Your task to perform on an android device: change alarm snooze length Image 0: 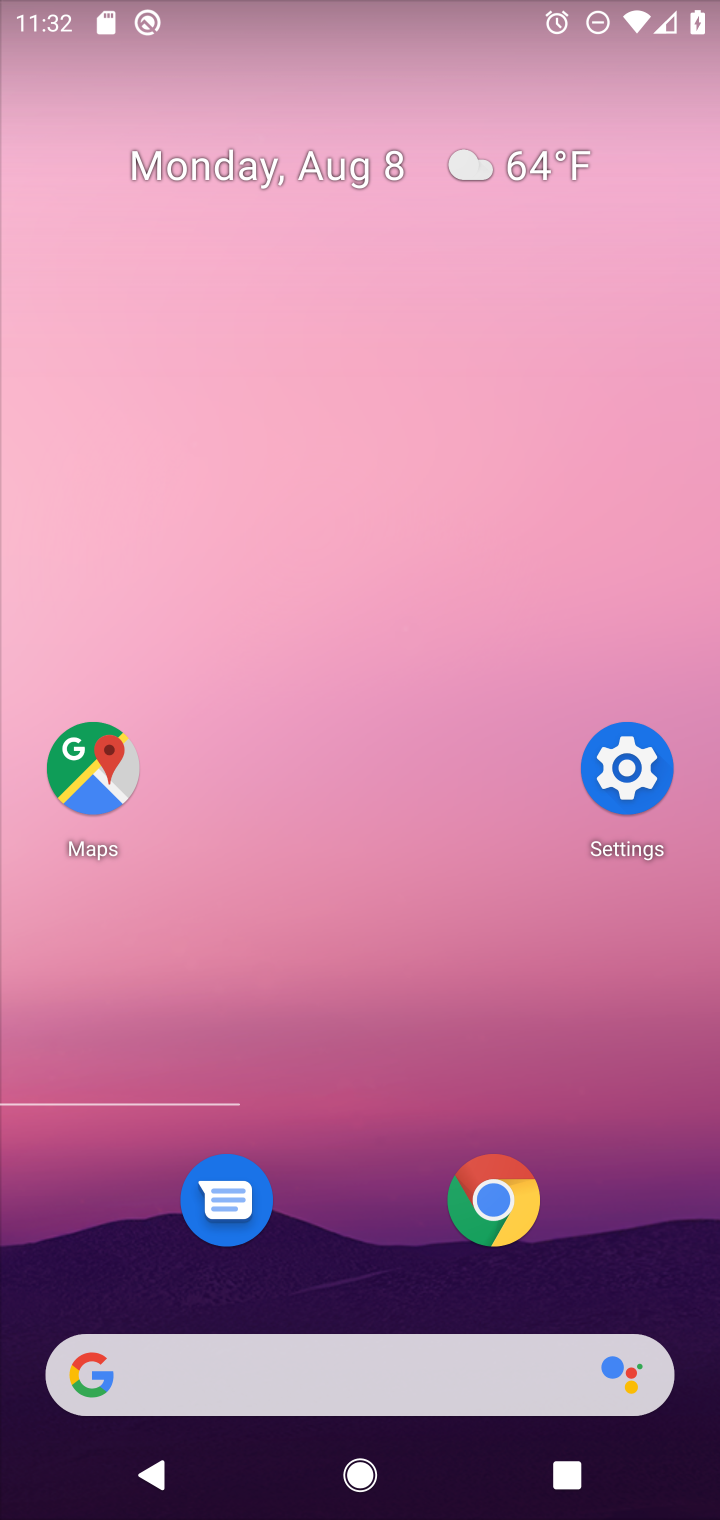
Step 0: drag from (356, 1325) to (496, 170)
Your task to perform on an android device: change alarm snooze length Image 1: 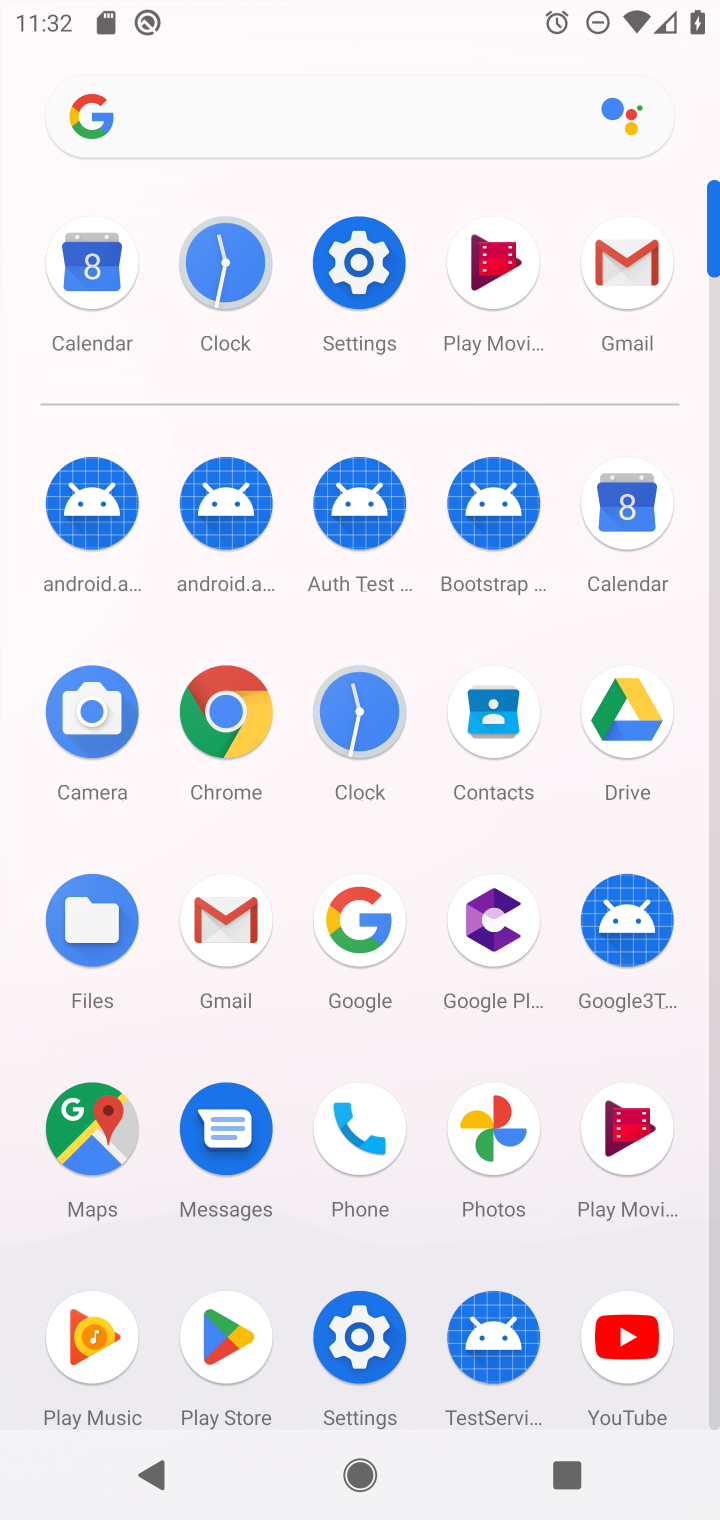
Step 1: click (211, 234)
Your task to perform on an android device: change alarm snooze length Image 2: 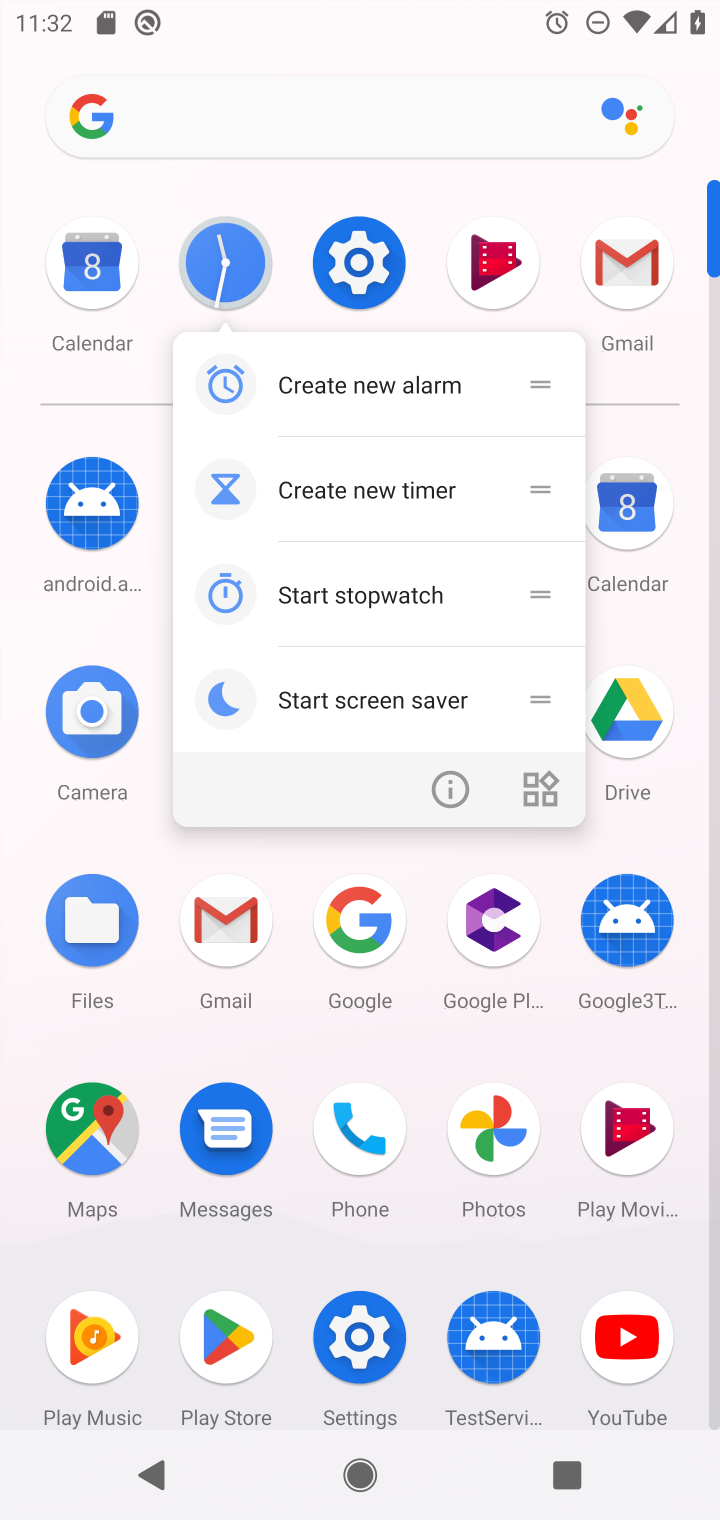
Step 2: click (222, 256)
Your task to perform on an android device: change alarm snooze length Image 3: 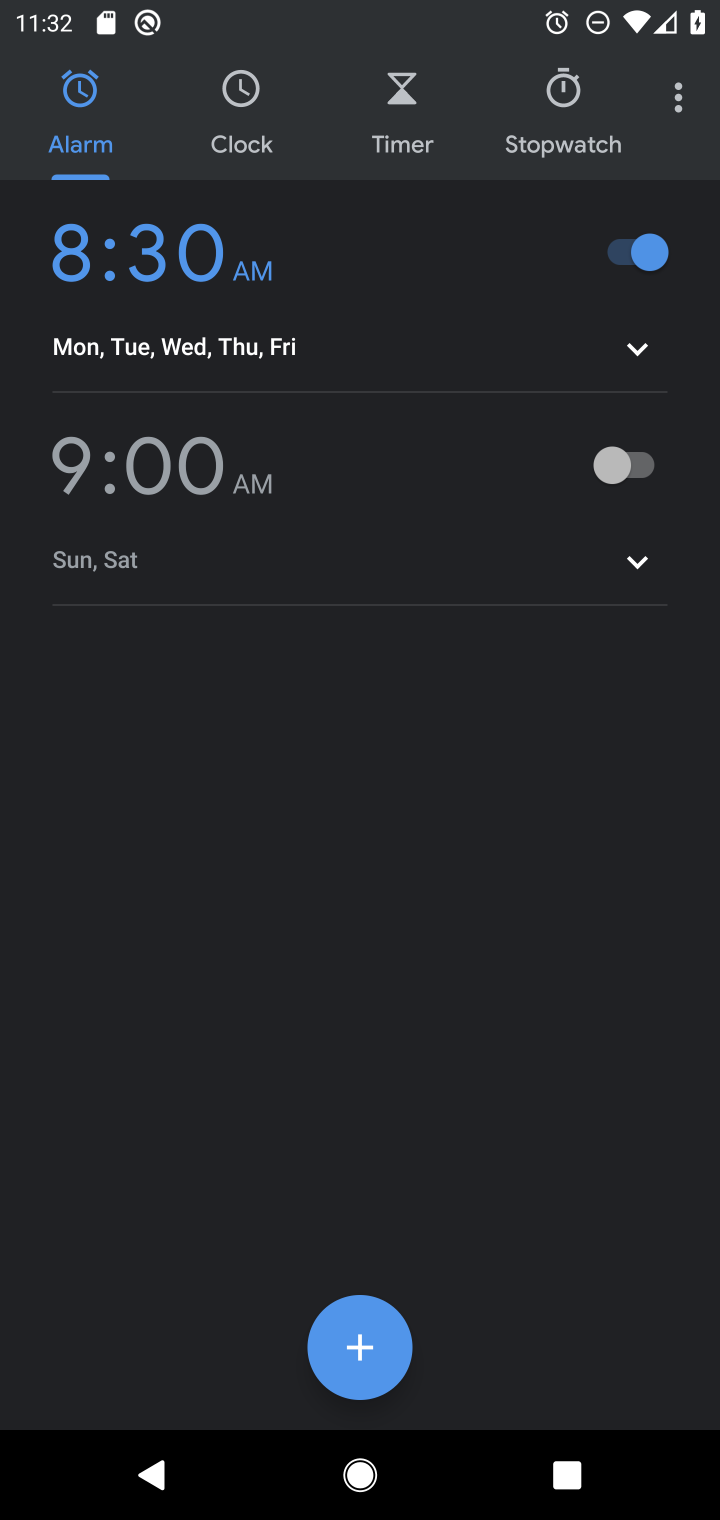
Step 3: click (681, 101)
Your task to perform on an android device: change alarm snooze length Image 4: 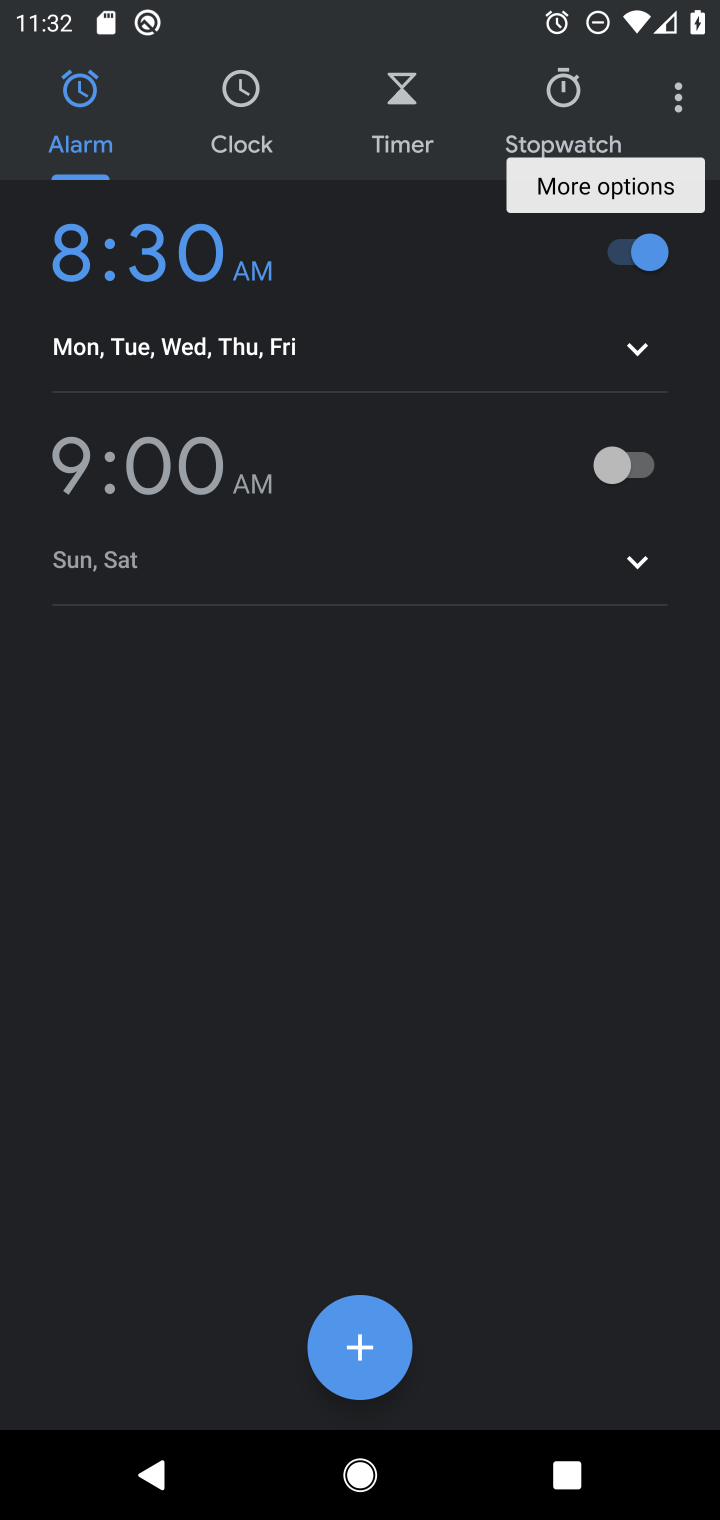
Step 4: click (668, 101)
Your task to perform on an android device: change alarm snooze length Image 5: 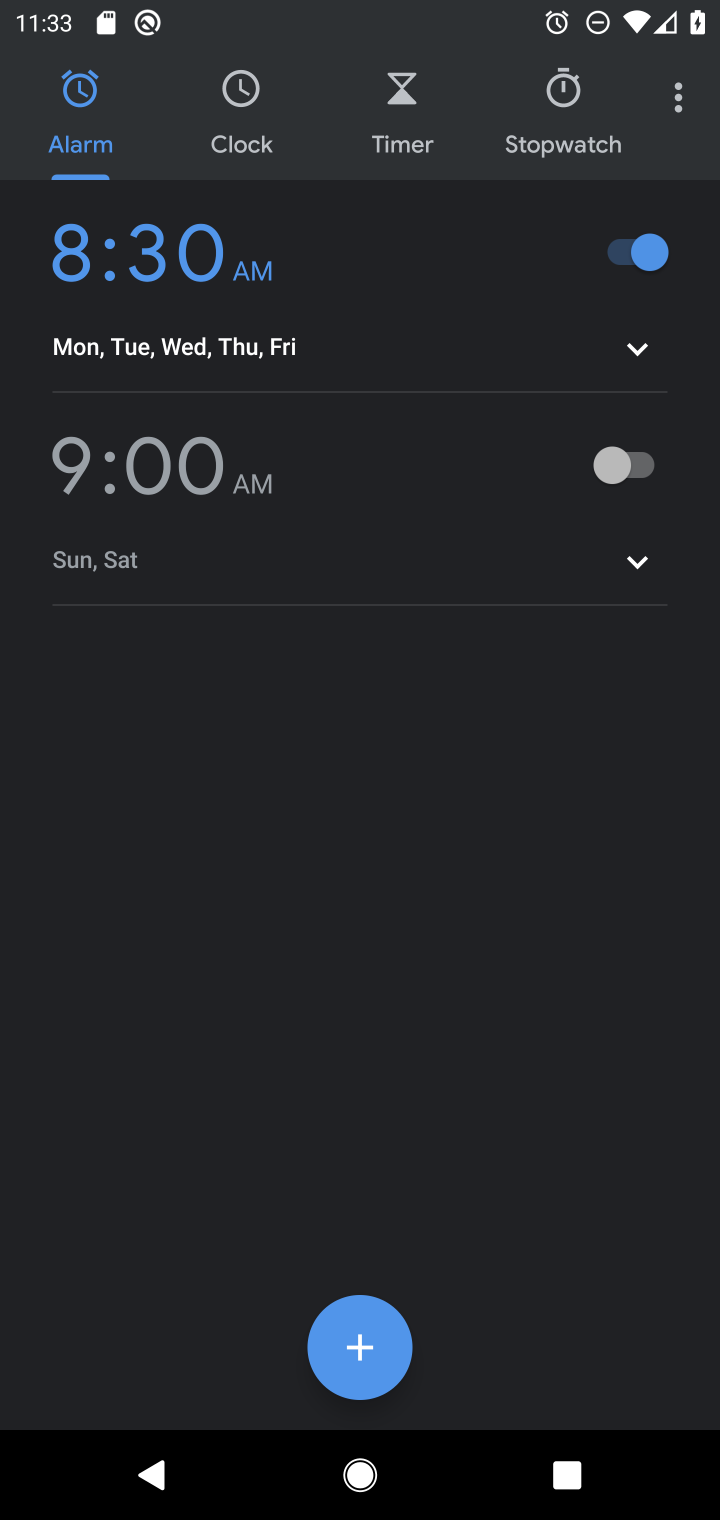
Step 5: click (680, 107)
Your task to perform on an android device: change alarm snooze length Image 6: 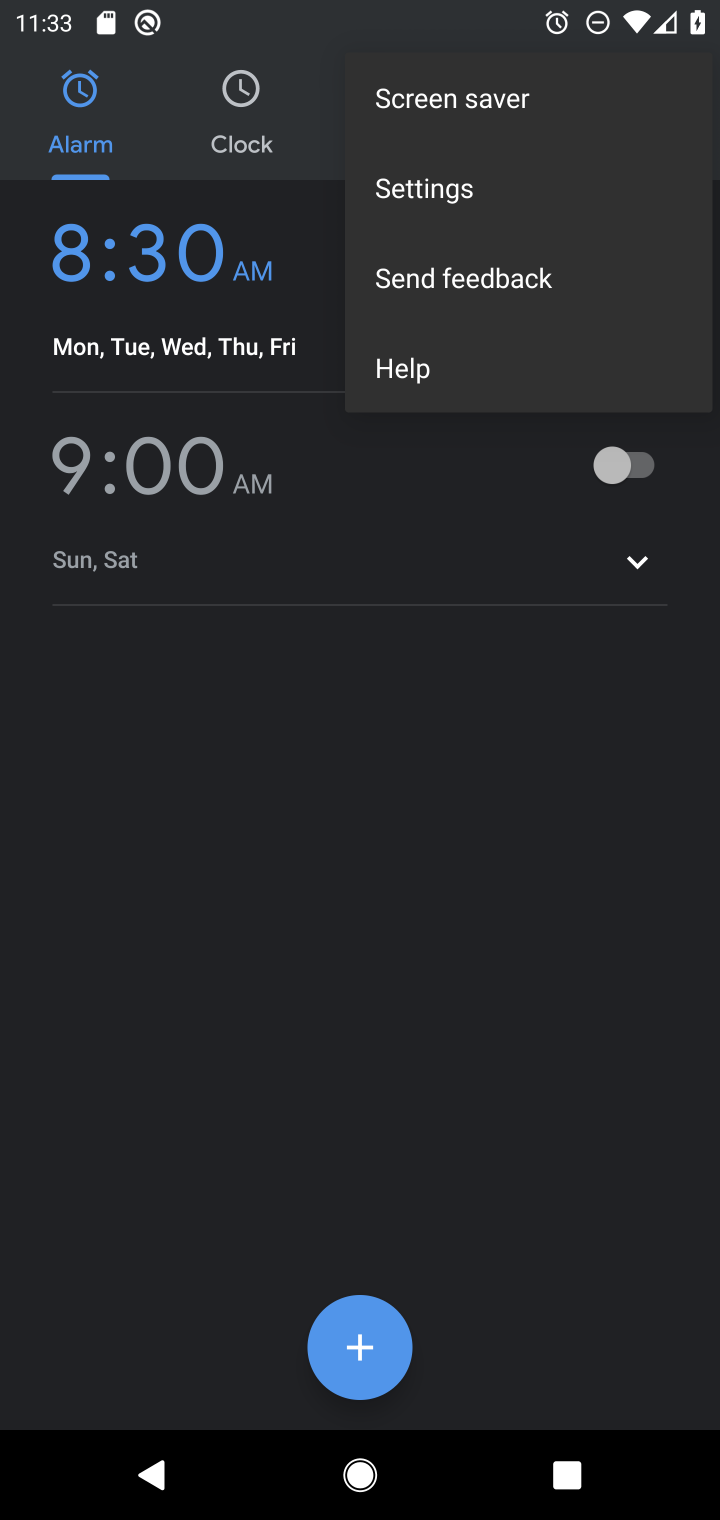
Step 6: click (467, 194)
Your task to perform on an android device: change alarm snooze length Image 7: 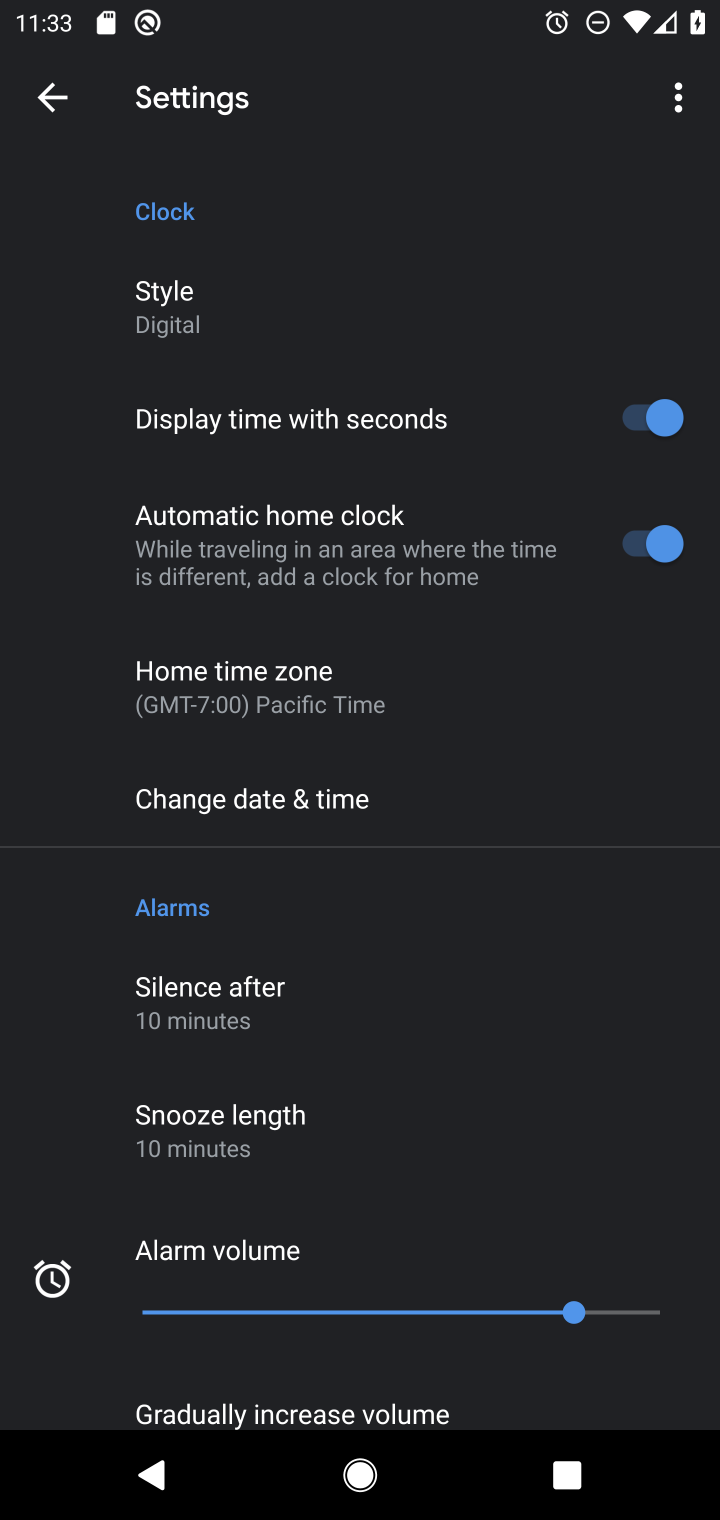
Step 7: click (237, 1122)
Your task to perform on an android device: change alarm snooze length Image 8: 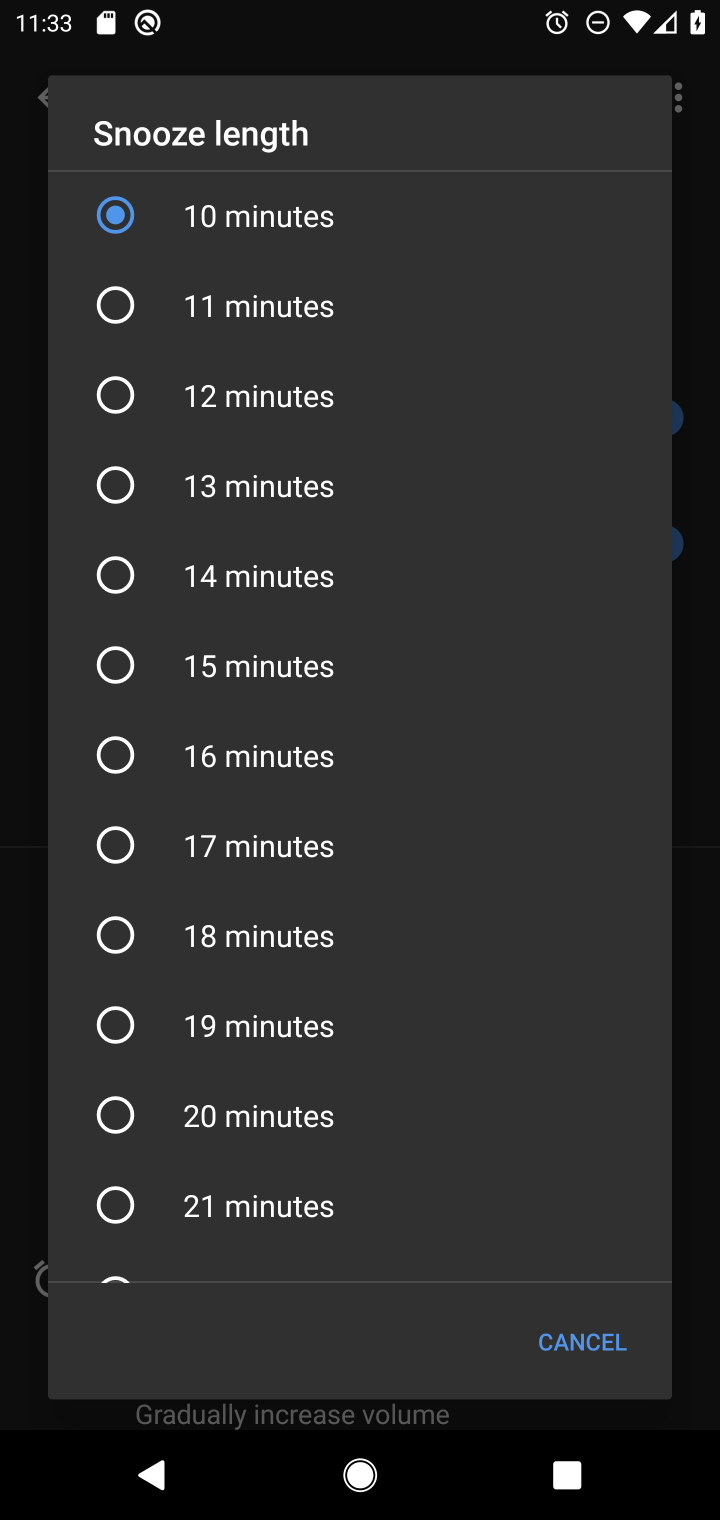
Step 8: click (99, 670)
Your task to perform on an android device: change alarm snooze length Image 9: 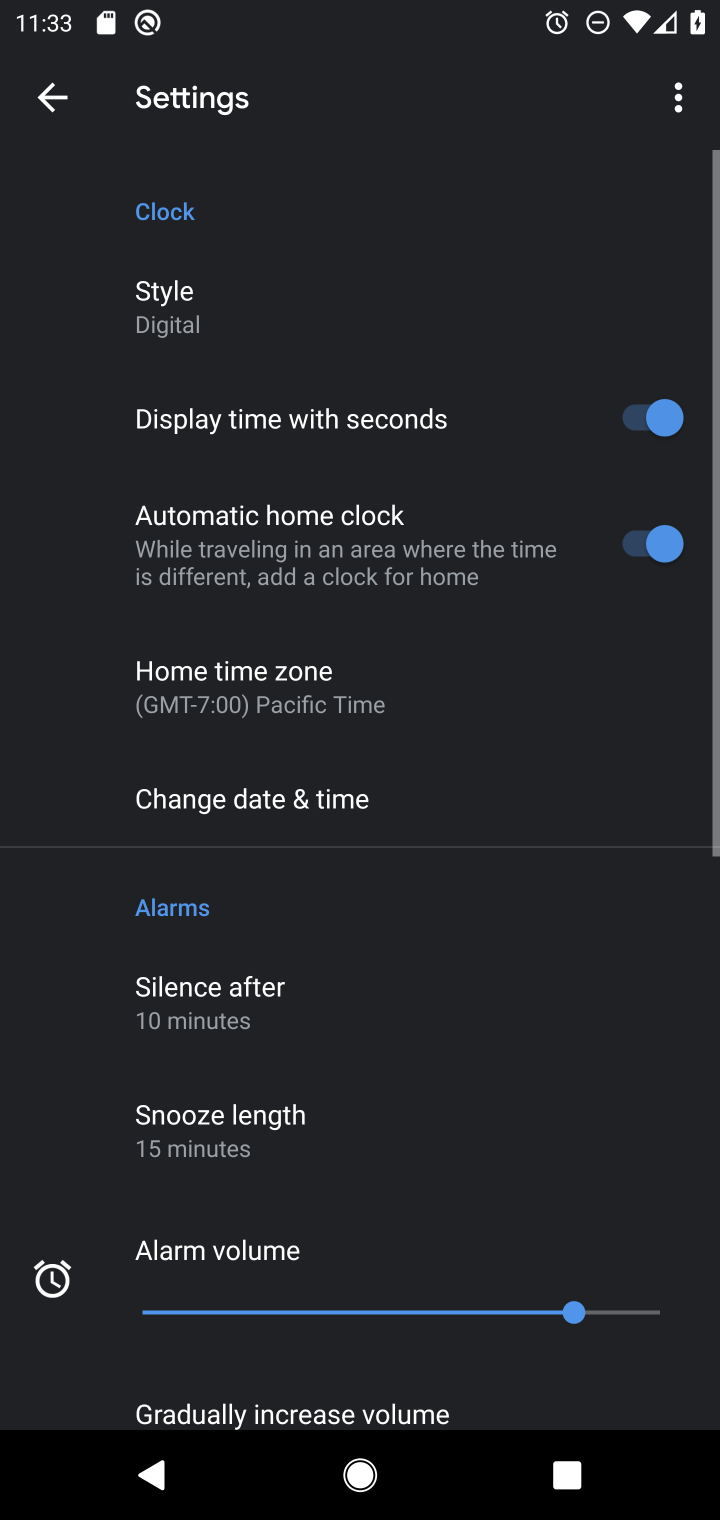
Step 9: task complete